Your task to perform on an android device: Search for Italian restaurants on Maps Image 0: 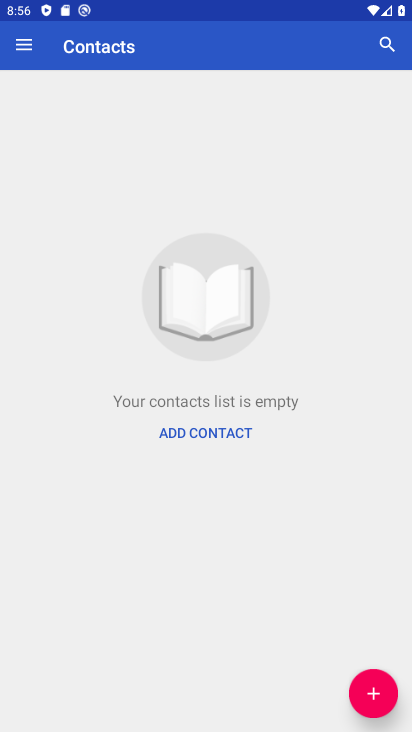
Step 0: press home button
Your task to perform on an android device: Search for Italian restaurants on Maps Image 1: 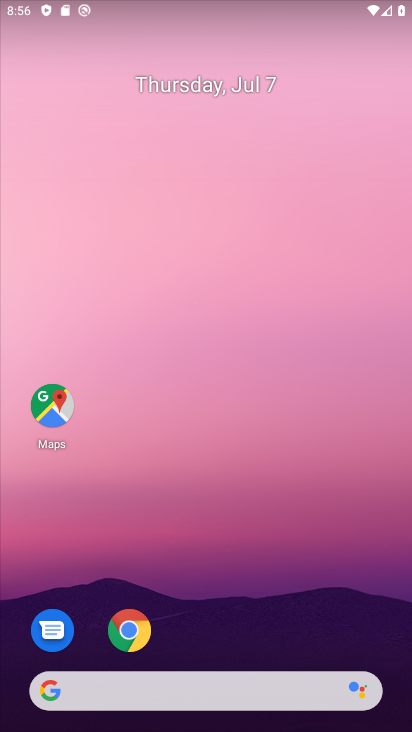
Step 1: click (192, 631)
Your task to perform on an android device: Search for Italian restaurants on Maps Image 2: 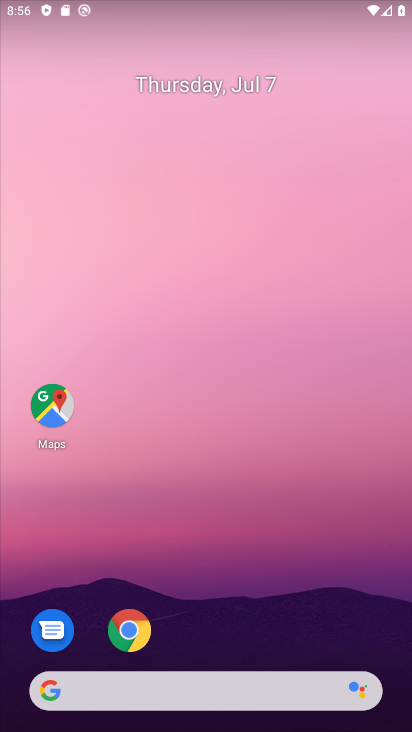
Step 2: click (54, 410)
Your task to perform on an android device: Search for Italian restaurants on Maps Image 3: 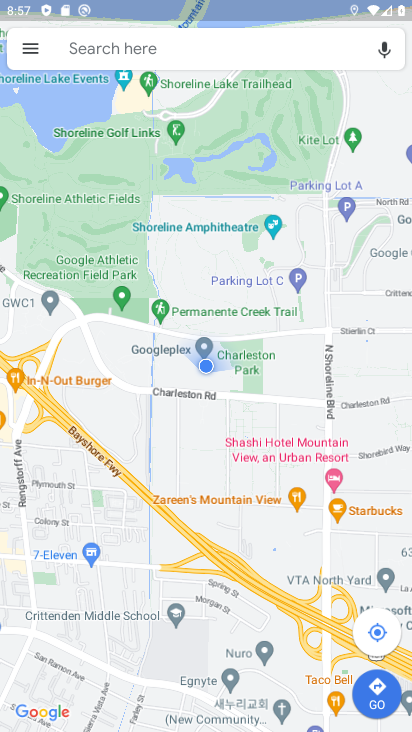
Step 3: click (148, 43)
Your task to perform on an android device: Search for Italian restaurants on Maps Image 4: 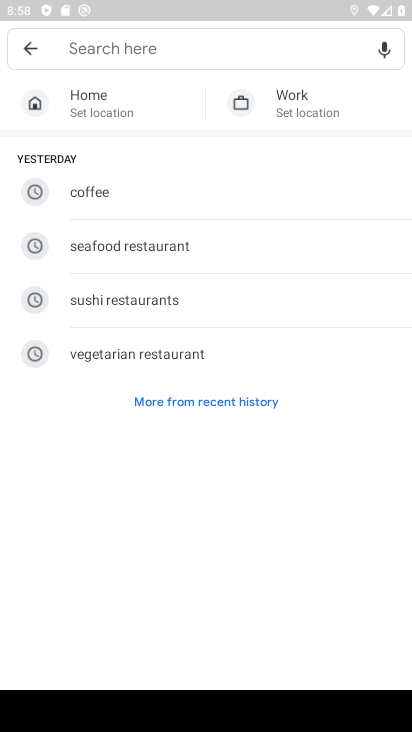
Step 4: type "Italian restaurants"
Your task to perform on an android device: Search for Italian restaurants on Maps Image 5: 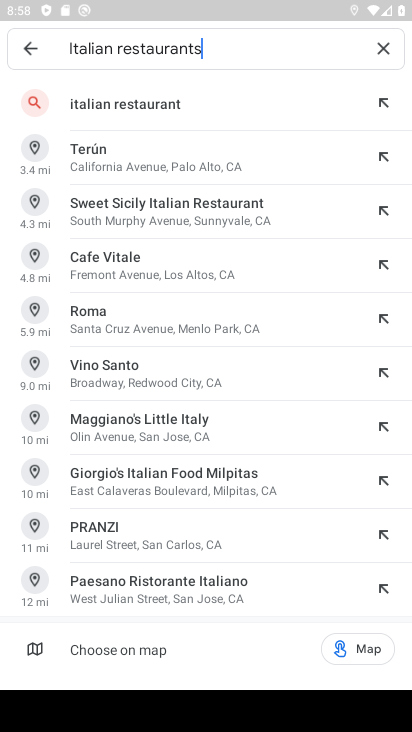
Step 5: click (176, 105)
Your task to perform on an android device: Search for Italian restaurants on Maps Image 6: 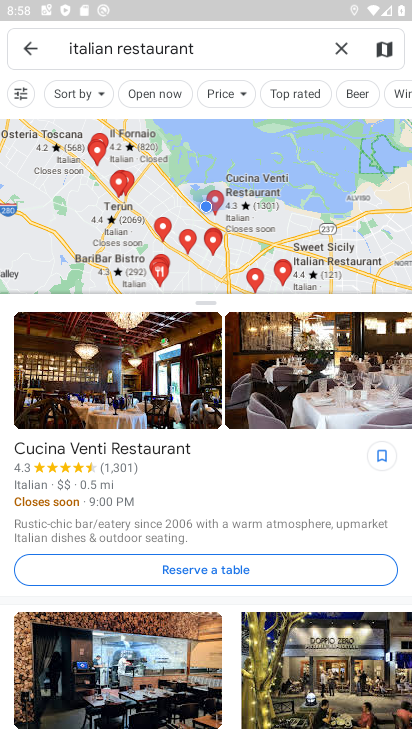
Step 6: task complete